Your task to perform on an android device: change the clock style Image 0: 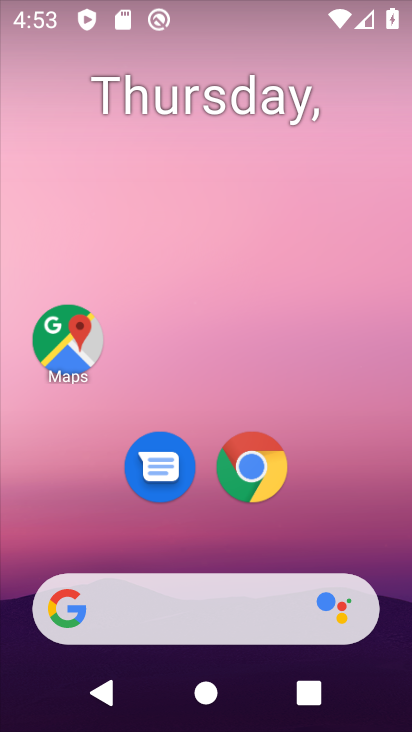
Step 0: click (281, 101)
Your task to perform on an android device: change the clock style Image 1: 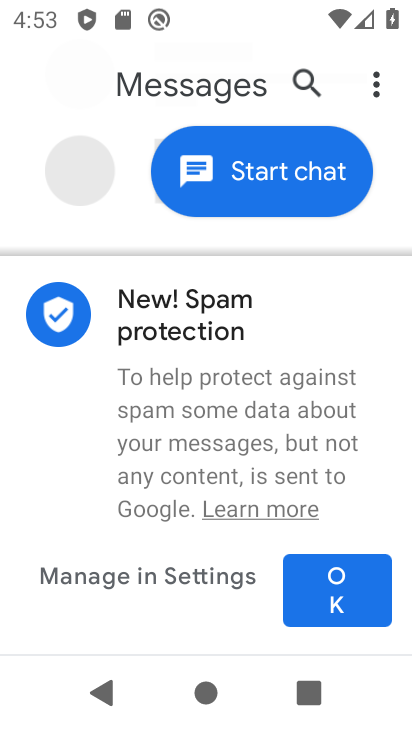
Step 1: press home button
Your task to perform on an android device: change the clock style Image 2: 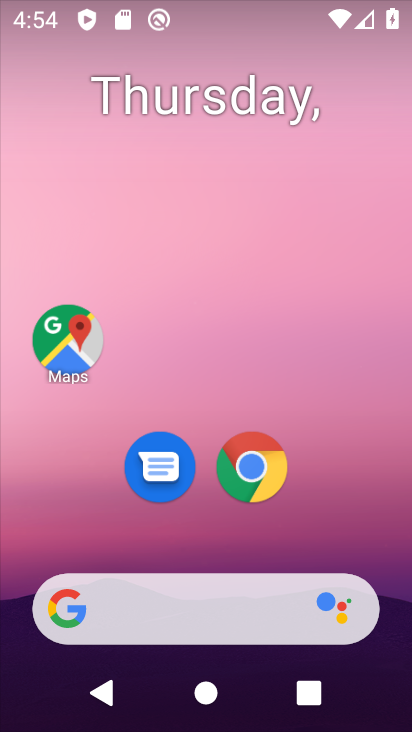
Step 2: drag from (396, 560) to (312, 86)
Your task to perform on an android device: change the clock style Image 3: 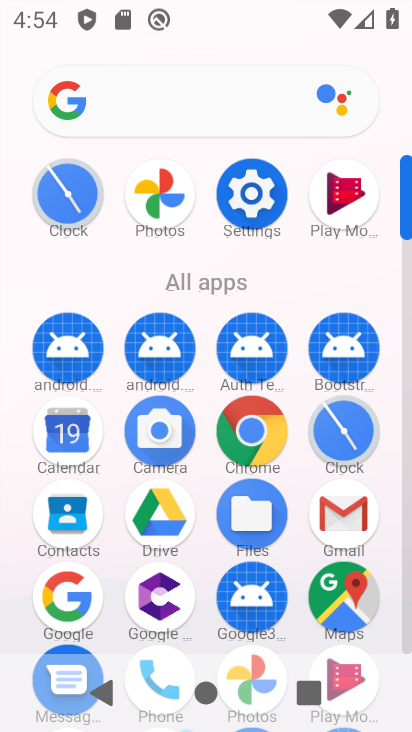
Step 3: click (352, 435)
Your task to perform on an android device: change the clock style Image 4: 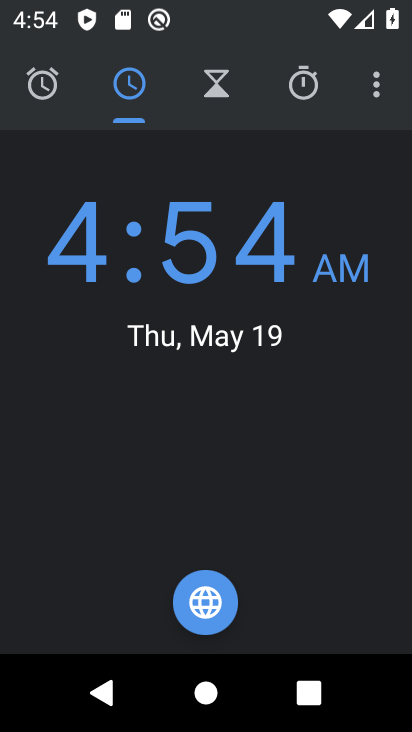
Step 4: click (385, 89)
Your task to perform on an android device: change the clock style Image 5: 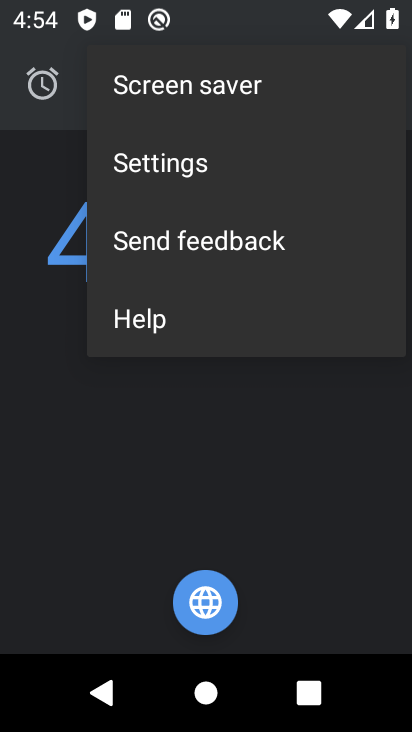
Step 5: click (304, 184)
Your task to perform on an android device: change the clock style Image 6: 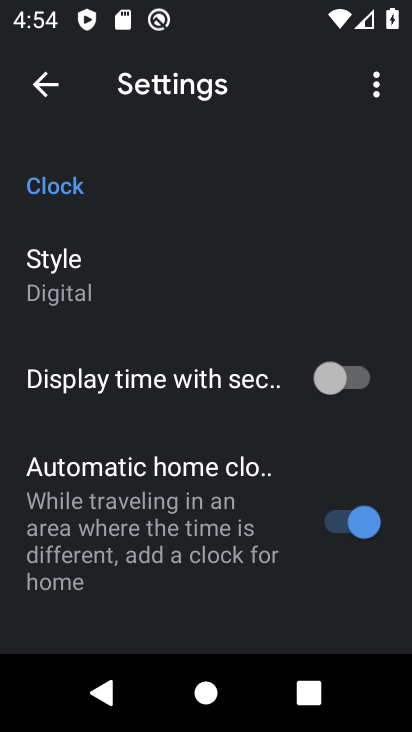
Step 6: click (289, 269)
Your task to perform on an android device: change the clock style Image 7: 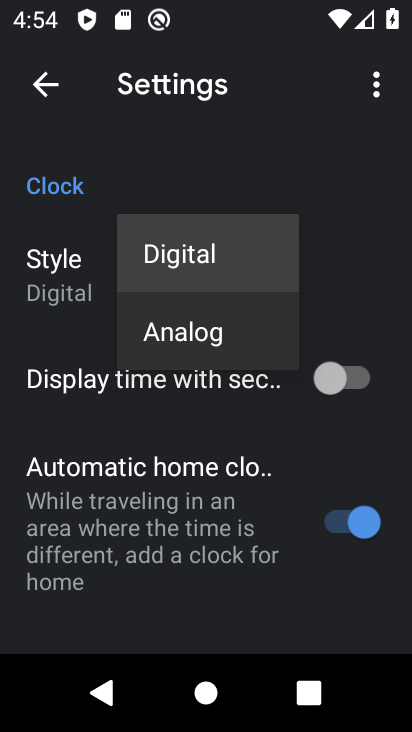
Step 7: click (215, 341)
Your task to perform on an android device: change the clock style Image 8: 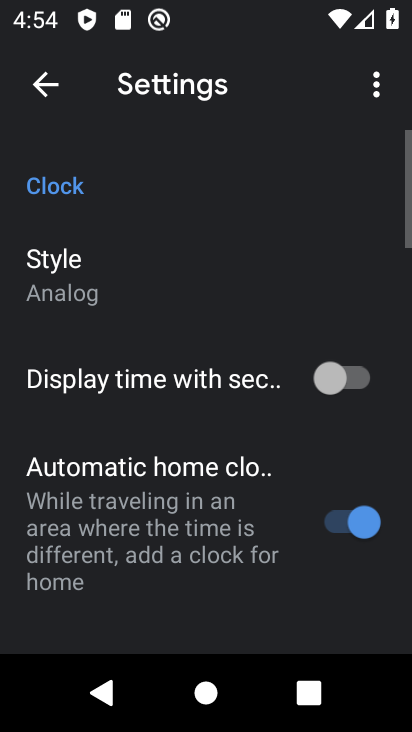
Step 8: task complete